Your task to perform on an android device: Go to settings Image 0: 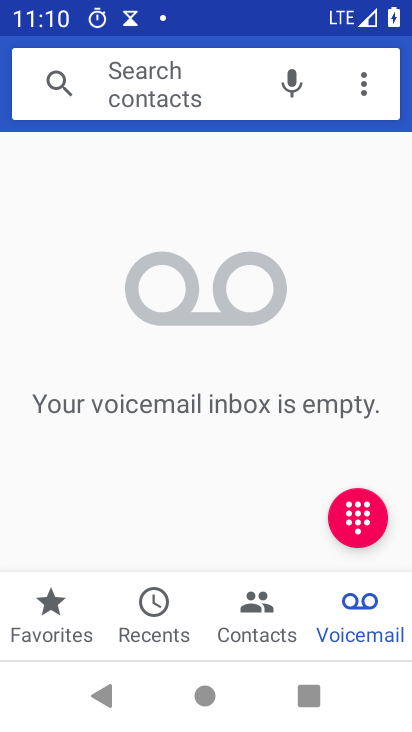
Step 0: press home button
Your task to perform on an android device: Go to settings Image 1: 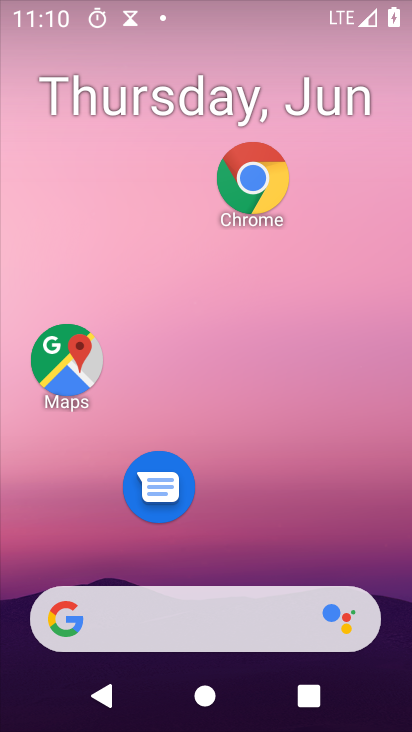
Step 1: drag from (253, 725) to (253, 86)
Your task to perform on an android device: Go to settings Image 2: 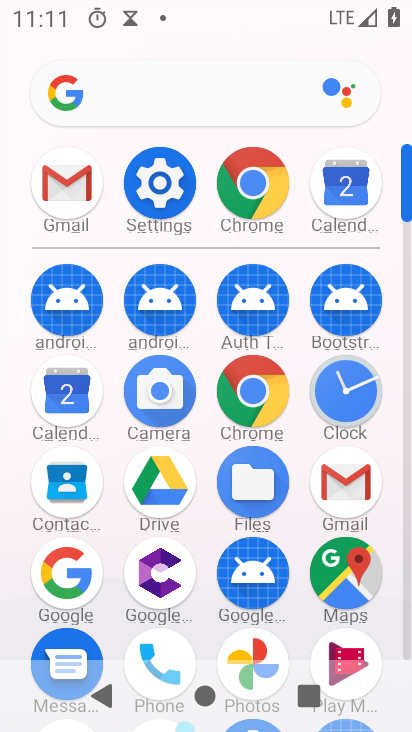
Step 2: click (146, 184)
Your task to perform on an android device: Go to settings Image 3: 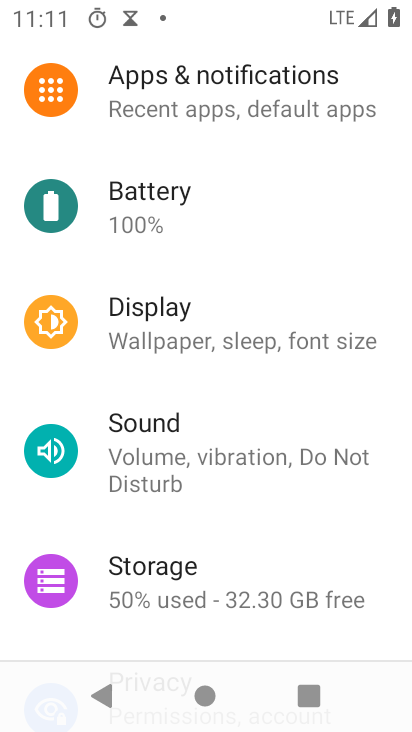
Step 3: task complete